Your task to perform on an android device: make emails show in primary in the gmail app Image 0: 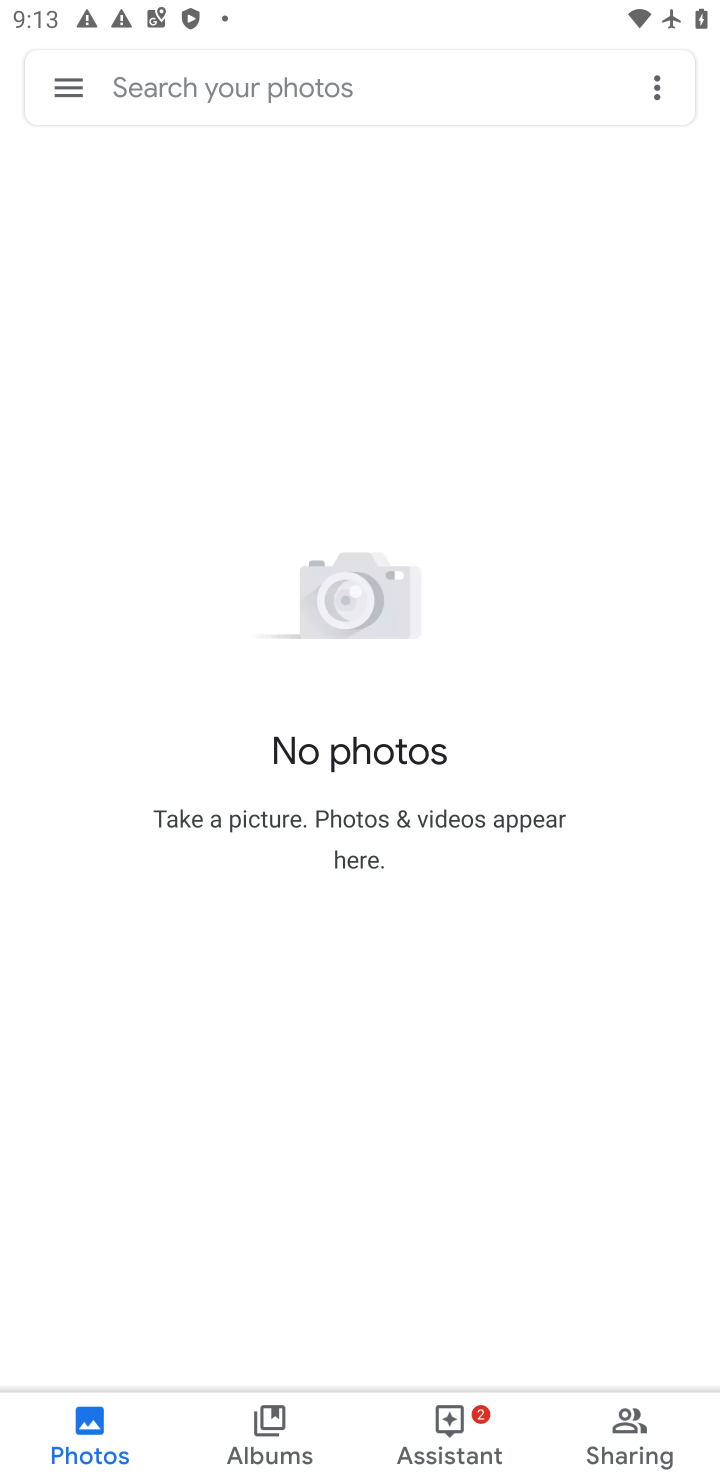
Step 0: press home button
Your task to perform on an android device: make emails show in primary in the gmail app Image 1: 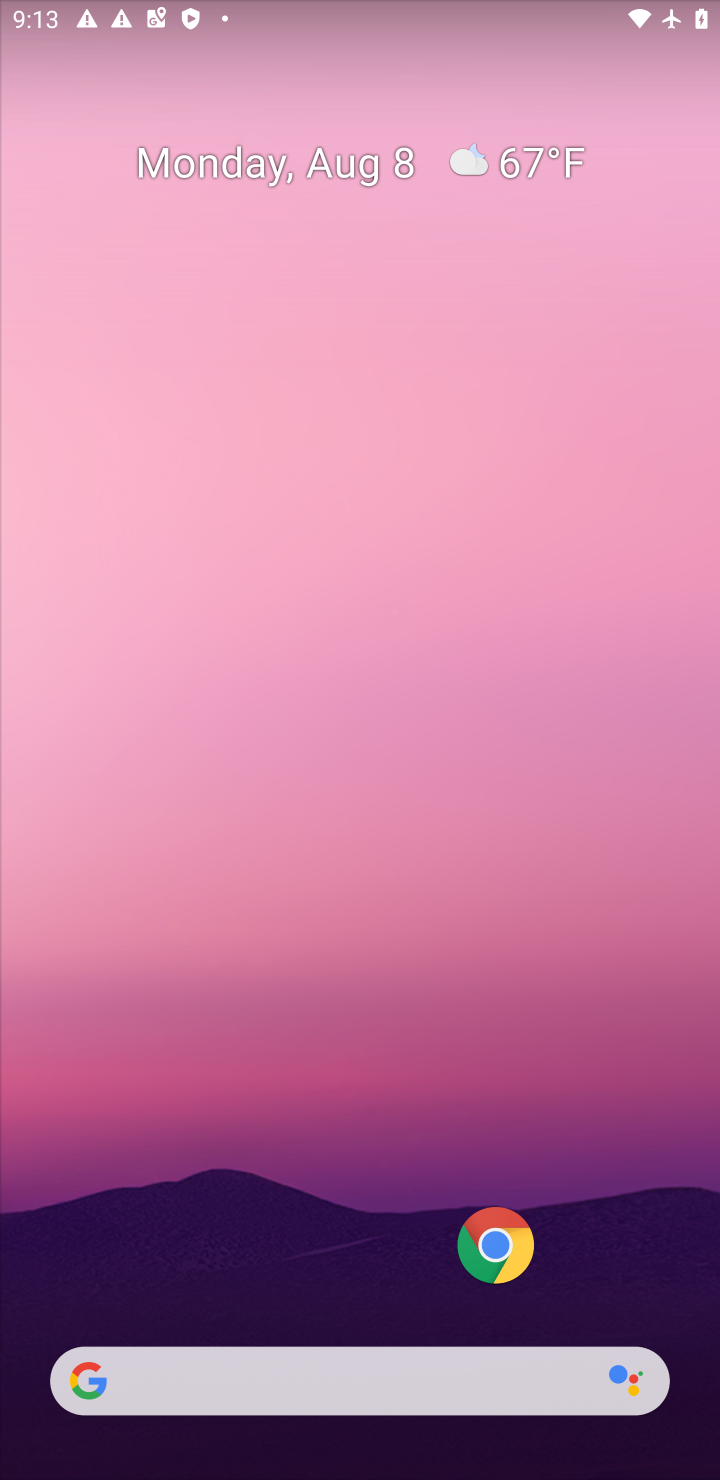
Step 1: drag from (267, 1081) to (273, 0)
Your task to perform on an android device: make emails show in primary in the gmail app Image 2: 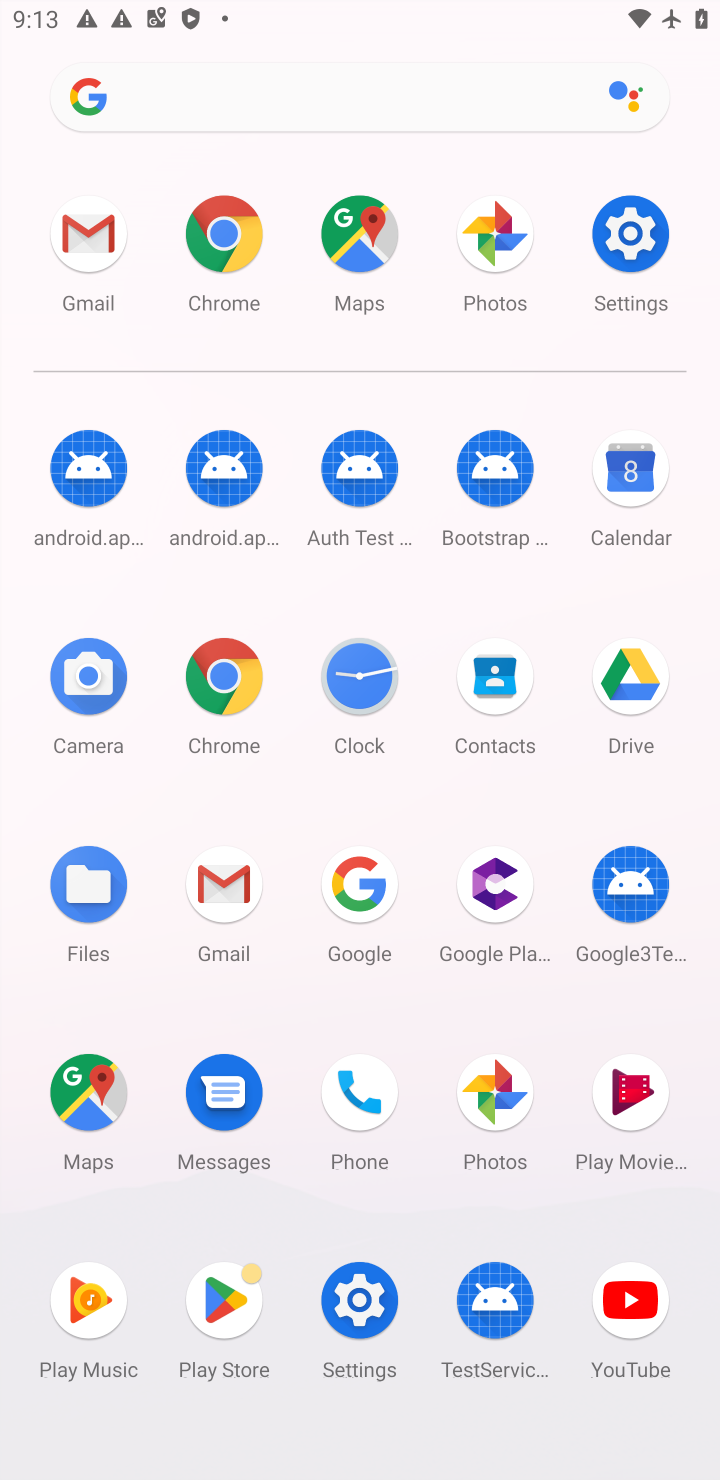
Step 2: click (214, 908)
Your task to perform on an android device: make emails show in primary in the gmail app Image 3: 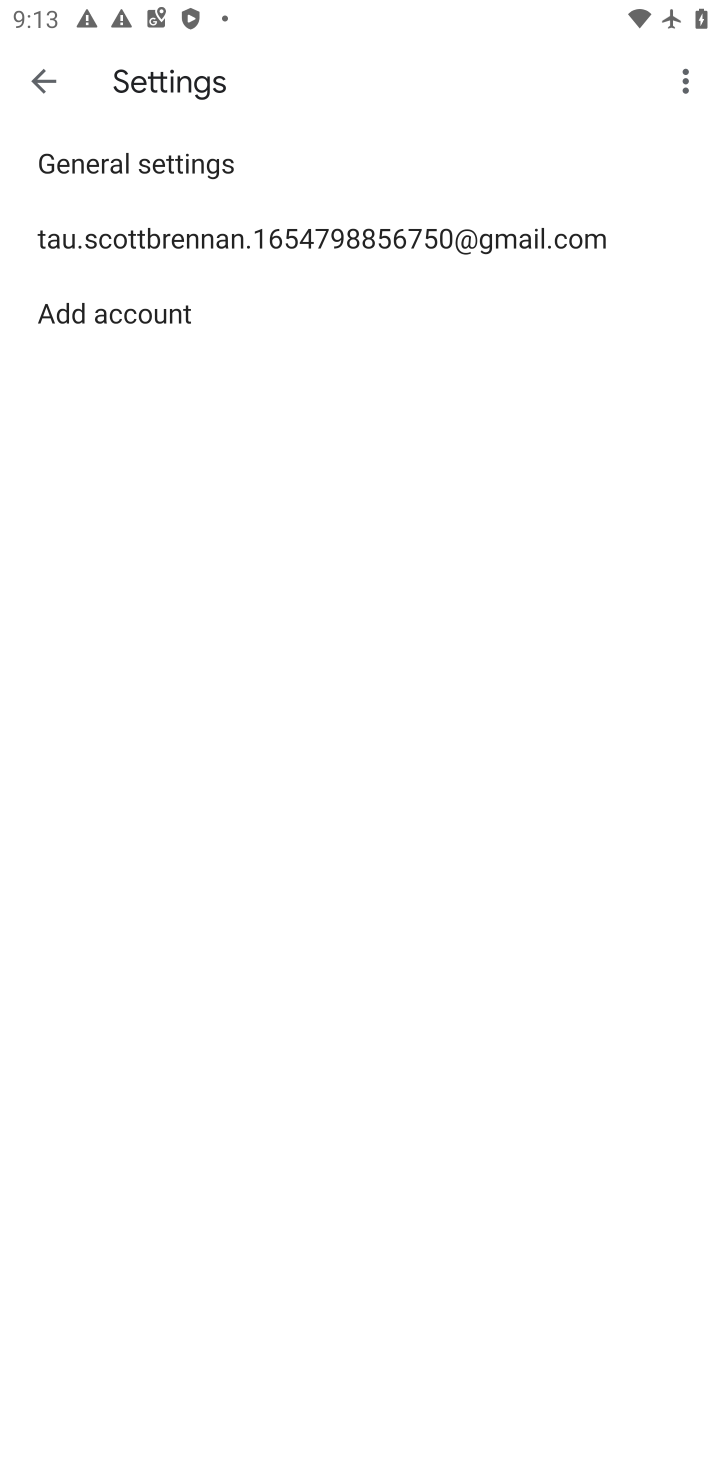
Step 3: click (305, 245)
Your task to perform on an android device: make emails show in primary in the gmail app Image 4: 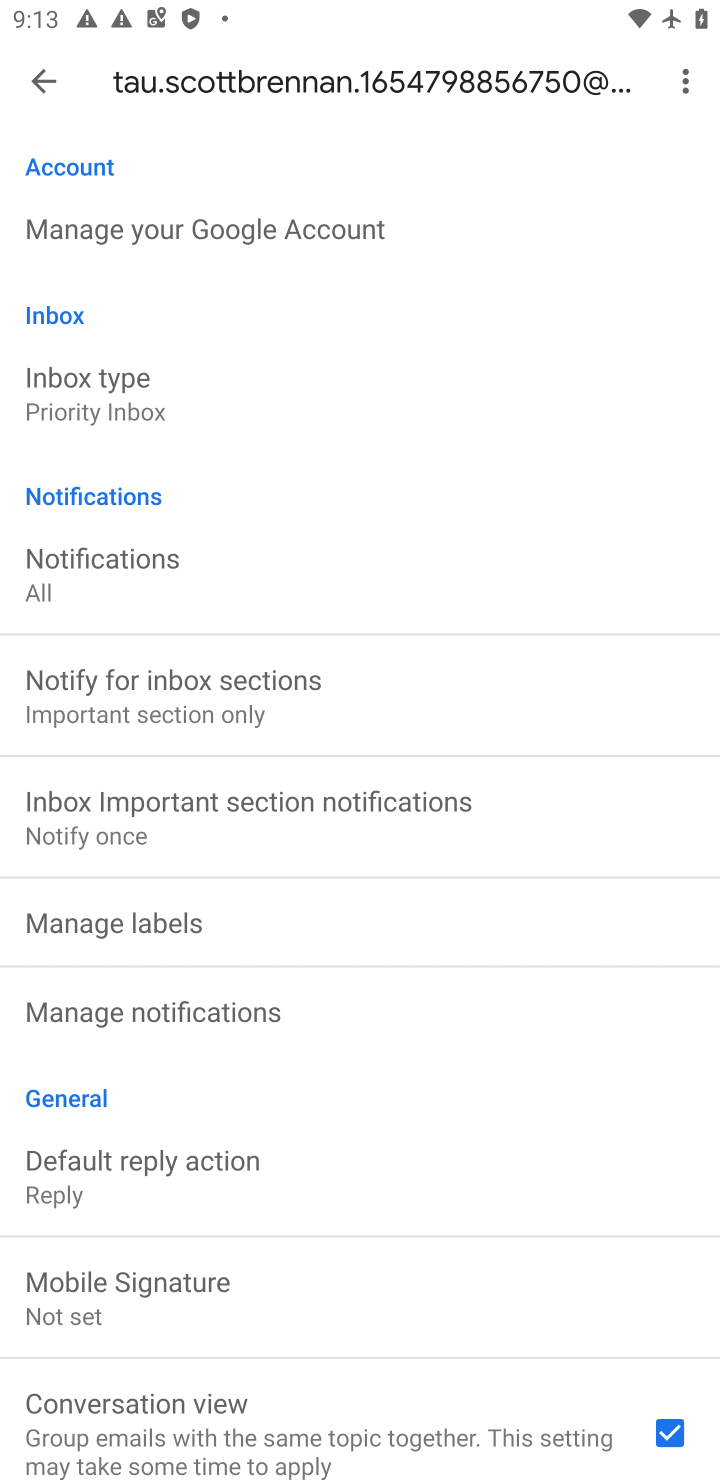
Step 4: click (119, 393)
Your task to perform on an android device: make emails show in primary in the gmail app Image 5: 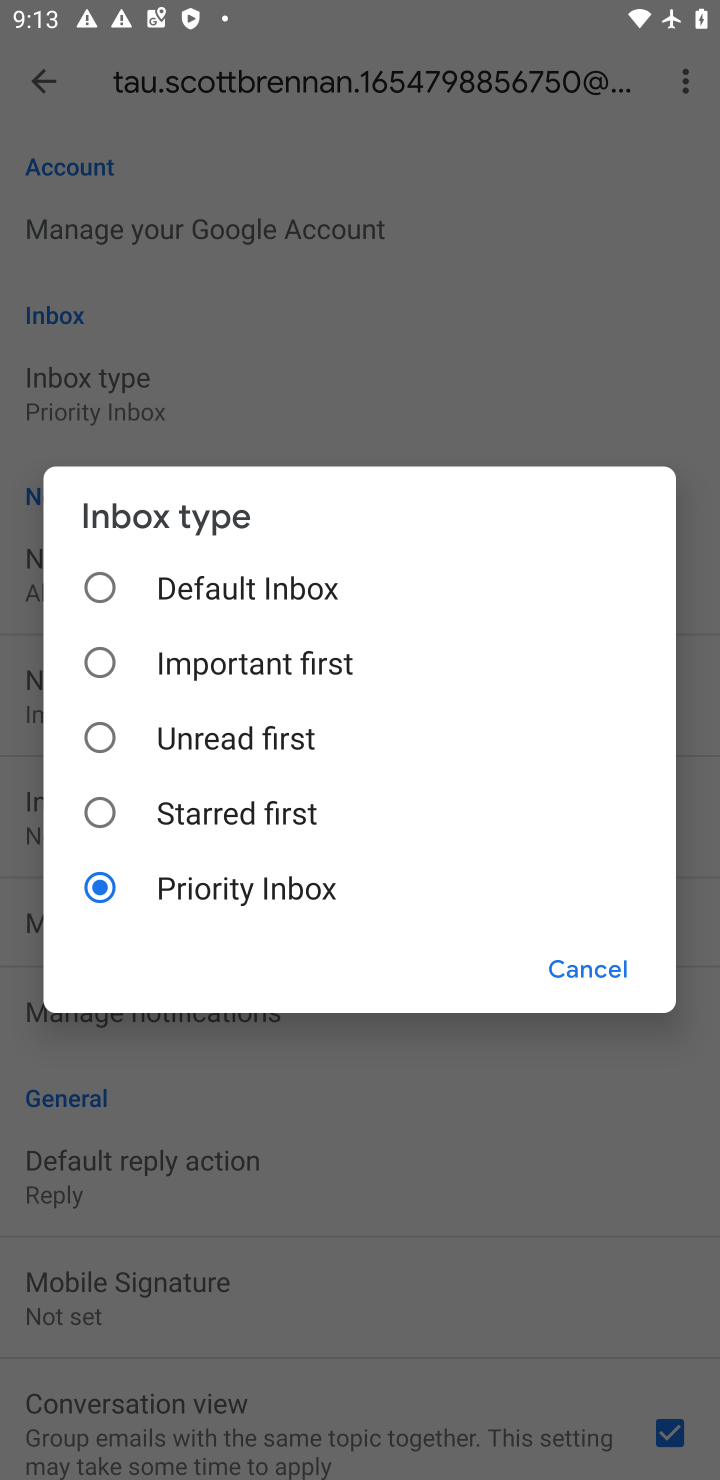
Step 5: click (207, 578)
Your task to perform on an android device: make emails show in primary in the gmail app Image 6: 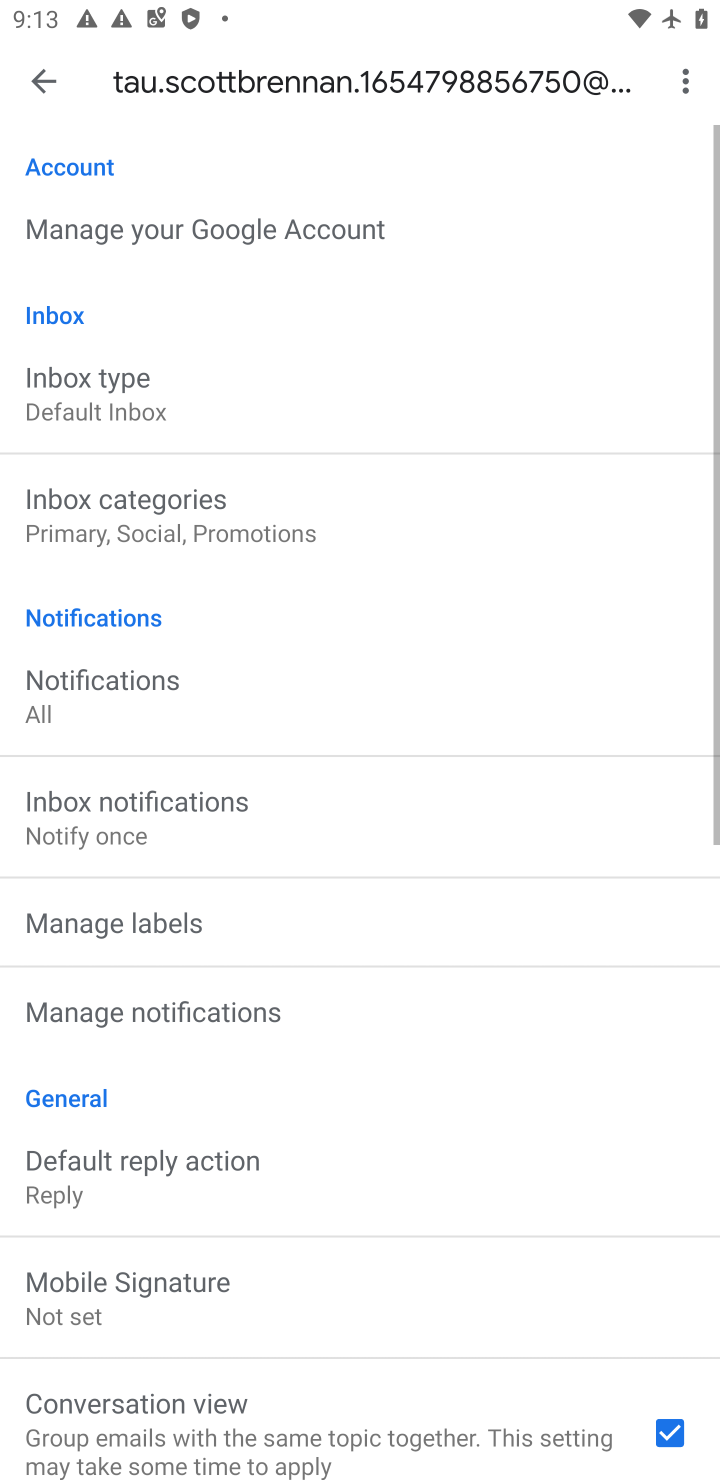
Step 6: click (207, 509)
Your task to perform on an android device: make emails show in primary in the gmail app Image 7: 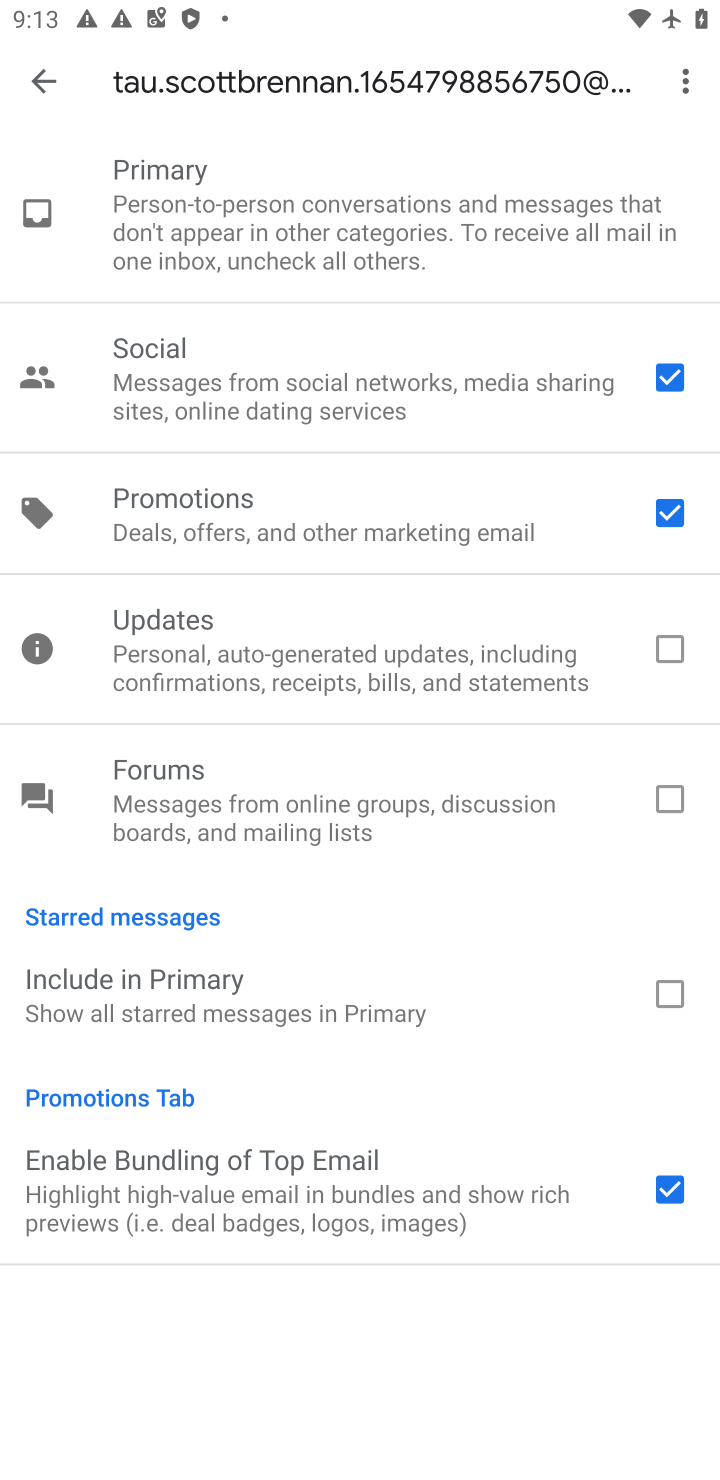
Step 7: click (641, 508)
Your task to perform on an android device: make emails show in primary in the gmail app Image 8: 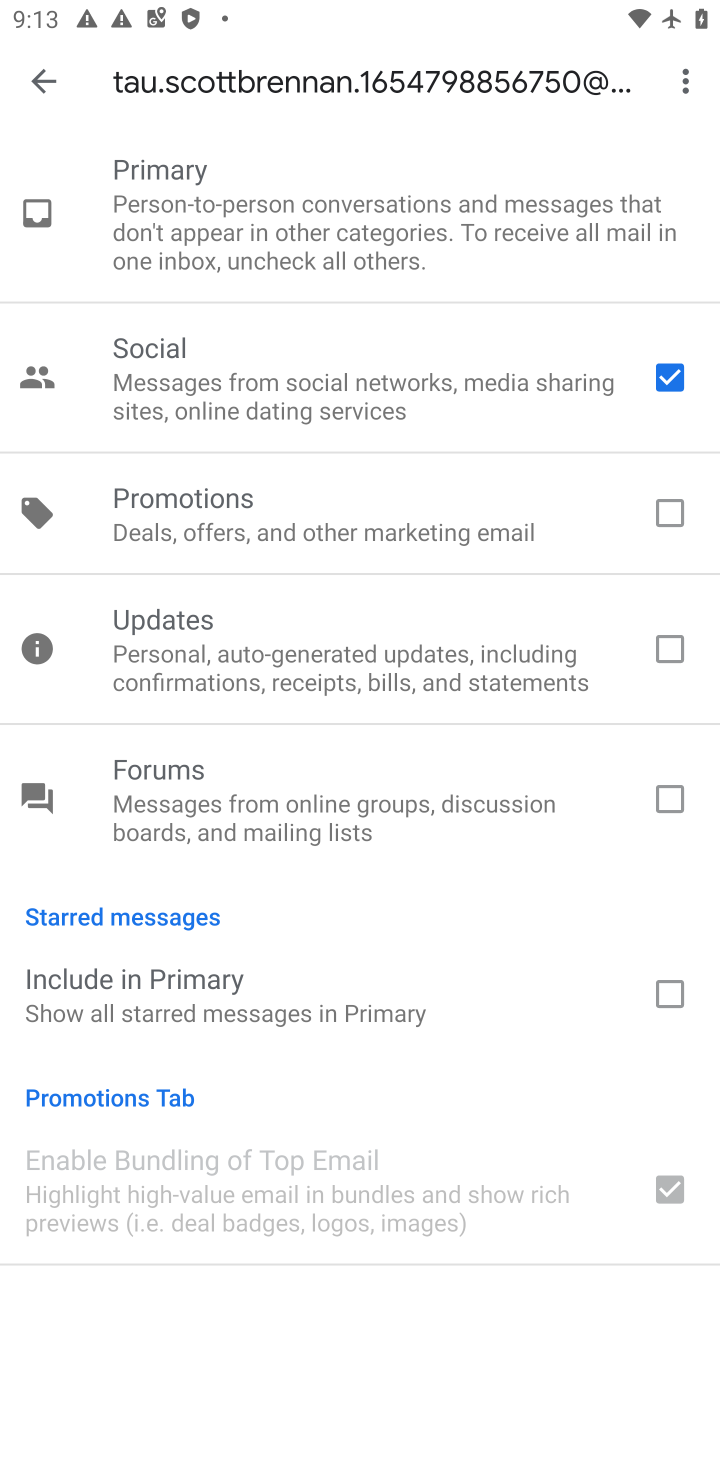
Step 8: click (607, 379)
Your task to perform on an android device: make emails show in primary in the gmail app Image 9: 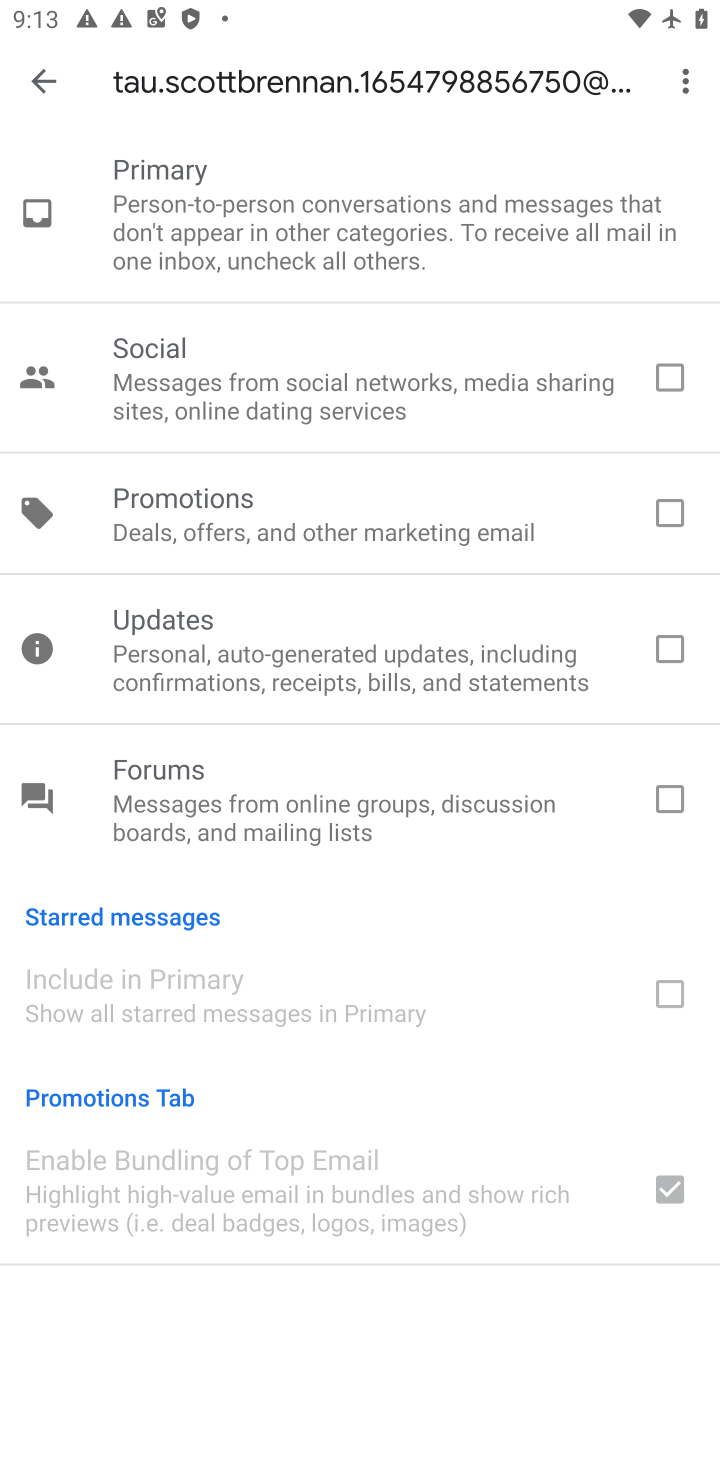
Step 9: task complete